Your task to perform on an android device: Go to Amazon Image 0: 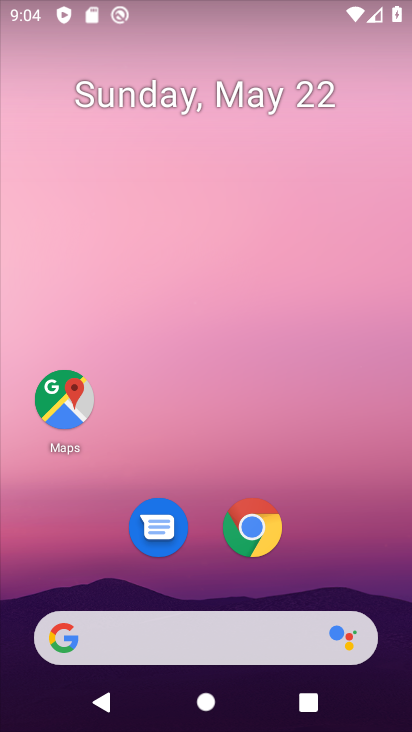
Step 0: click (250, 544)
Your task to perform on an android device: Go to Amazon Image 1: 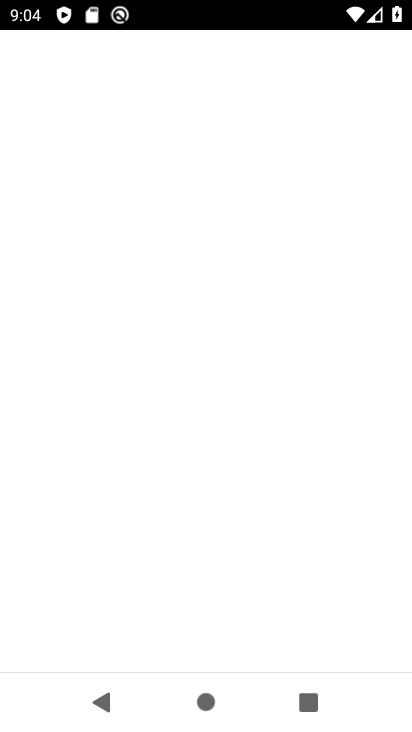
Step 1: click (259, 523)
Your task to perform on an android device: Go to Amazon Image 2: 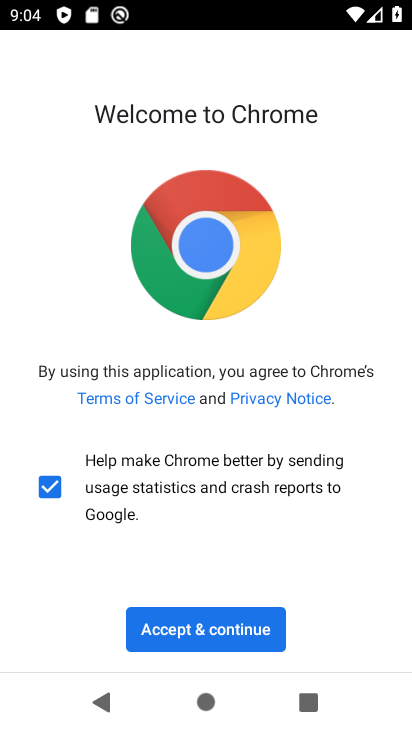
Step 2: click (207, 617)
Your task to perform on an android device: Go to Amazon Image 3: 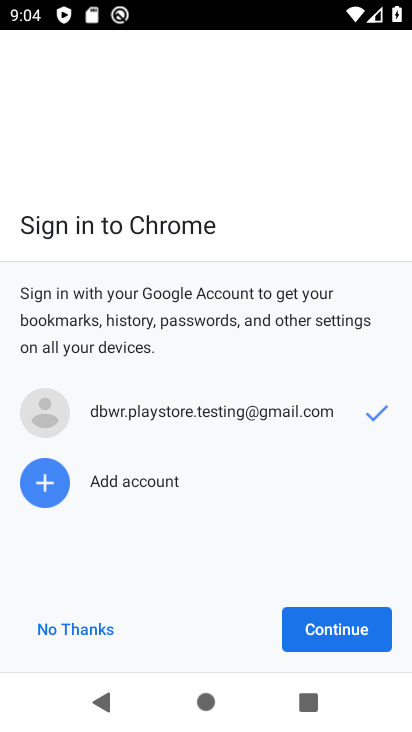
Step 3: click (341, 625)
Your task to perform on an android device: Go to Amazon Image 4: 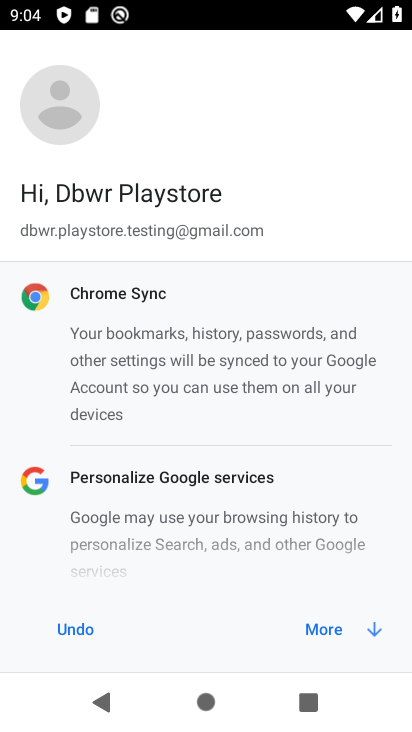
Step 4: click (341, 625)
Your task to perform on an android device: Go to Amazon Image 5: 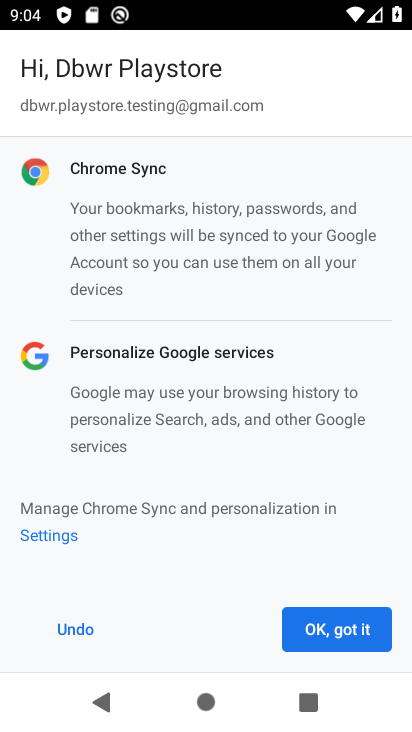
Step 5: click (341, 625)
Your task to perform on an android device: Go to Amazon Image 6: 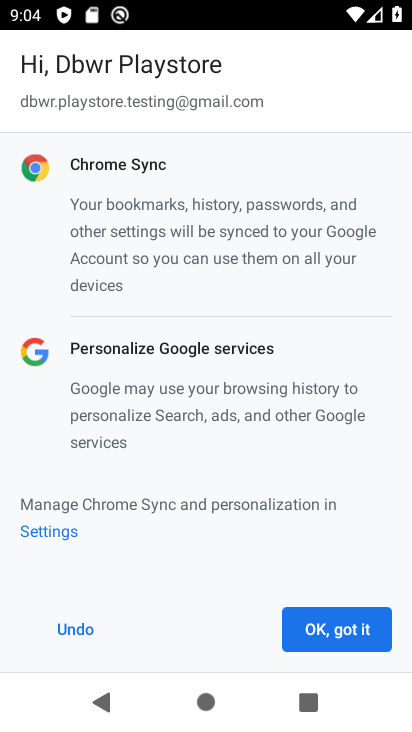
Step 6: click (341, 625)
Your task to perform on an android device: Go to Amazon Image 7: 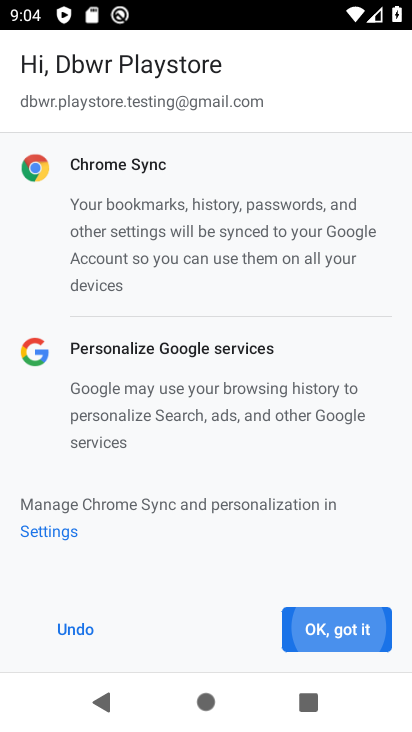
Step 7: click (341, 625)
Your task to perform on an android device: Go to Amazon Image 8: 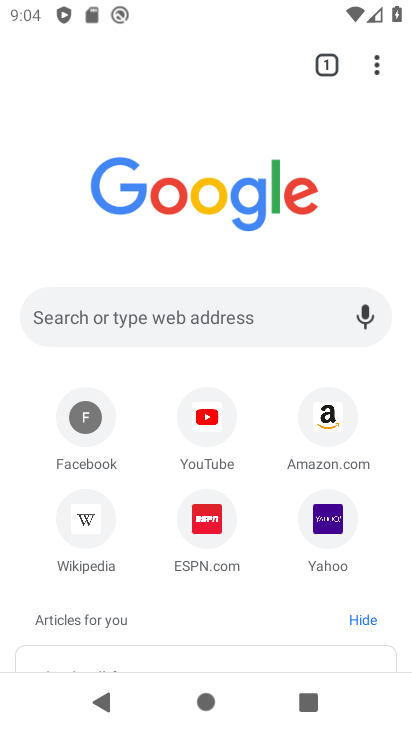
Step 8: click (309, 429)
Your task to perform on an android device: Go to Amazon Image 9: 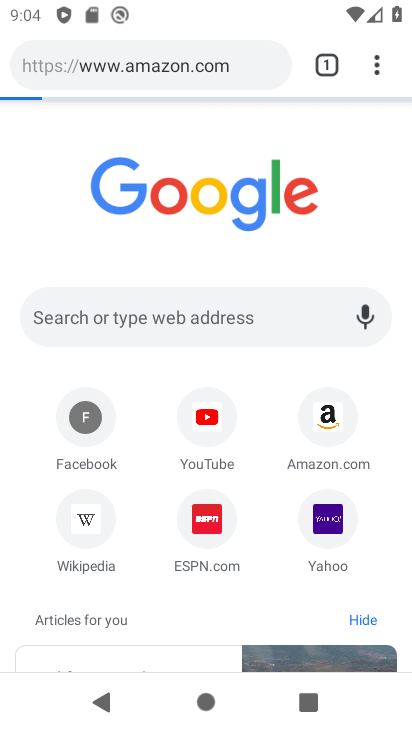
Step 9: task complete